Your task to perform on an android device: change keyboard looks Image 0: 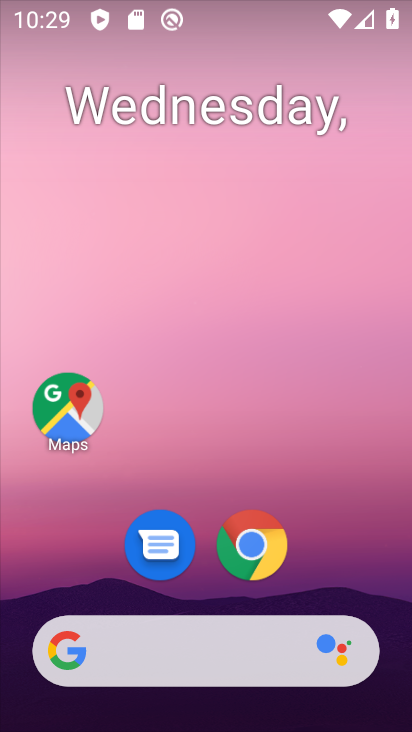
Step 0: drag from (182, 707) to (280, 19)
Your task to perform on an android device: change keyboard looks Image 1: 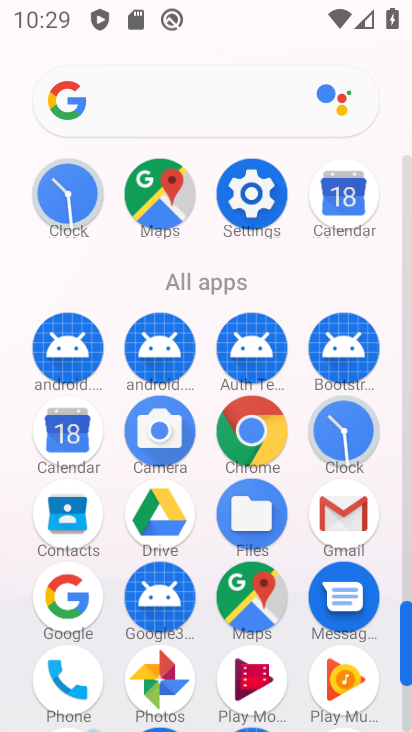
Step 1: click (246, 194)
Your task to perform on an android device: change keyboard looks Image 2: 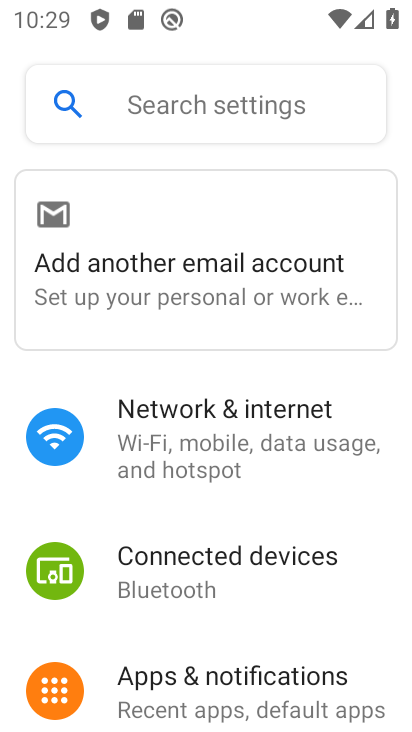
Step 2: drag from (283, 652) to (249, 15)
Your task to perform on an android device: change keyboard looks Image 3: 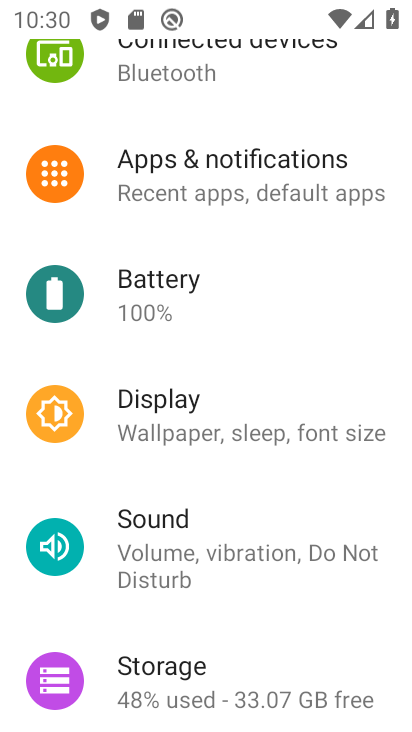
Step 3: drag from (278, 637) to (197, 84)
Your task to perform on an android device: change keyboard looks Image 4: 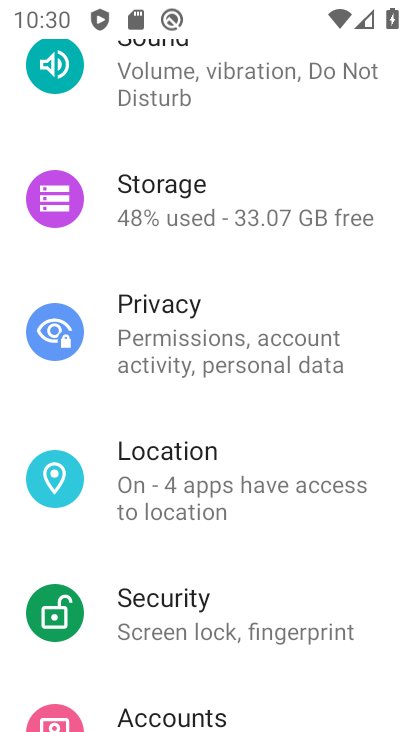
Step 4: drag from (268, 600) to (264, 184)
Your task to perform on an android device: change keyboard looks Image 5: 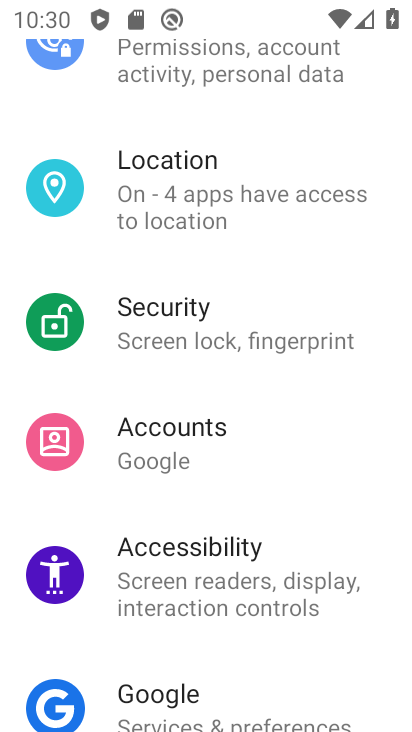
Step 5: drag from (283, 629) to (379, 32)
Your task to perform on an android device: change keyboard looks Image 6: 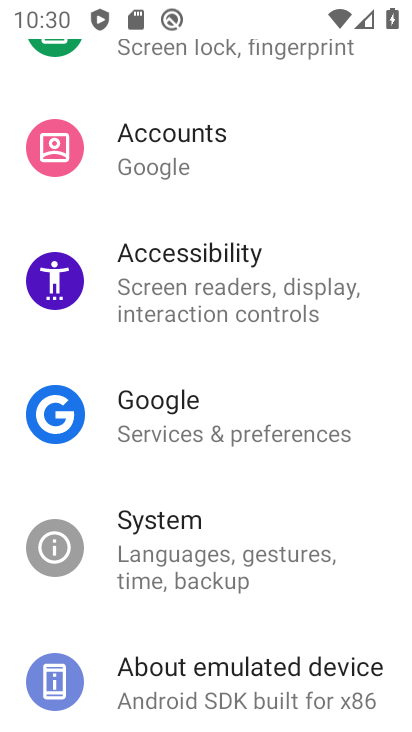
Step 6: drag from (296, 479) to (407, 499)
Your task to perform on an android device: change keyboard looks Image 7: 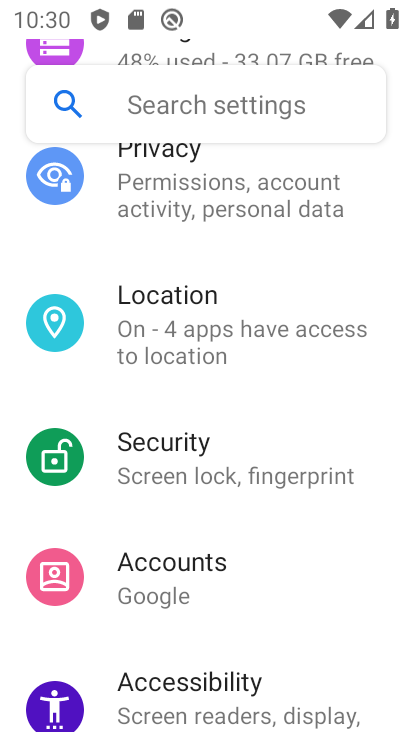
Step 7: drag from (267, 603) to (338, 53)
Your task to perform on an android device: change keyboard looks Image 8: 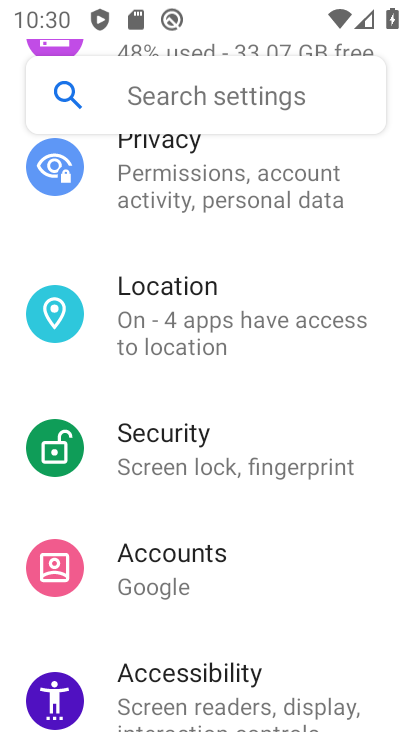
Step 8: drag from (267, 604) to (261, 9)
Your task to perform on an android device: change keyboard looks Image 9: 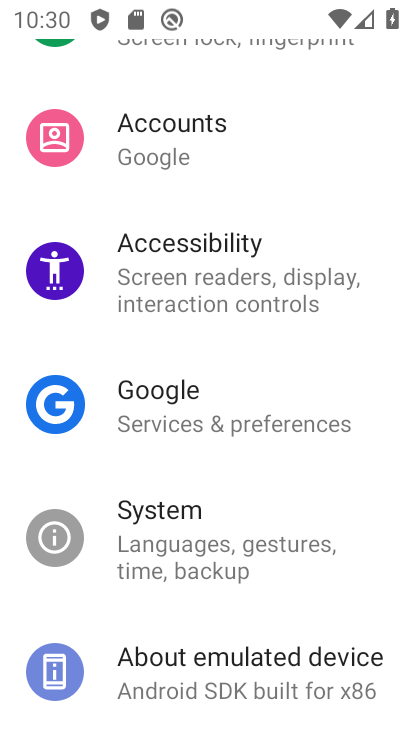
Step 9: click (242, 546)
Your task to perform on an android device: change keyboard looks Image 10: 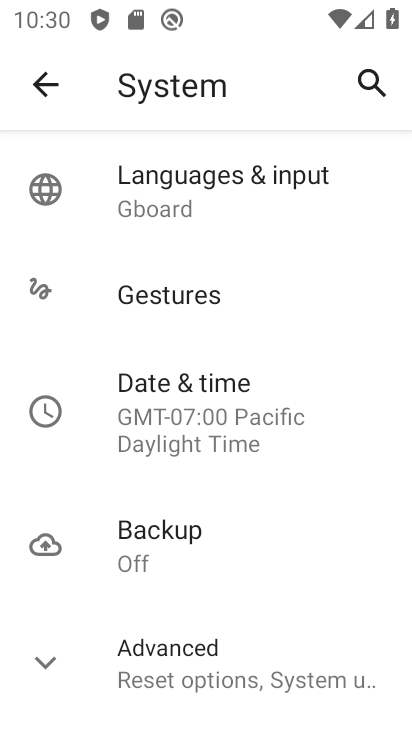
Step 10: click (207, 187)
Your task to perform on an android device: change keyboard looks Image 11: 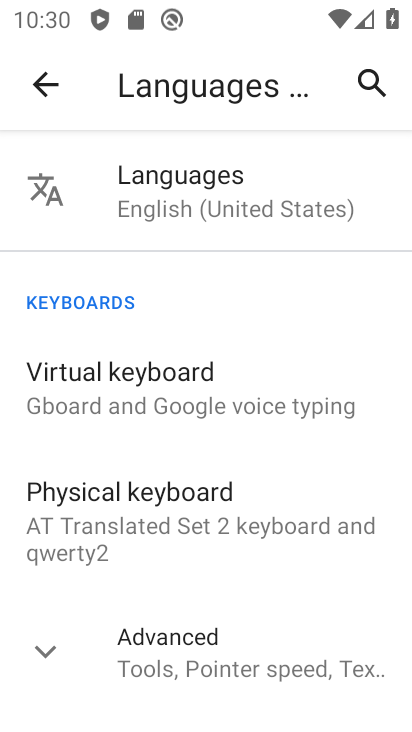
Step 11: click (152, 365)
Your task to perform on an android device: change keyboard looks Image 12: 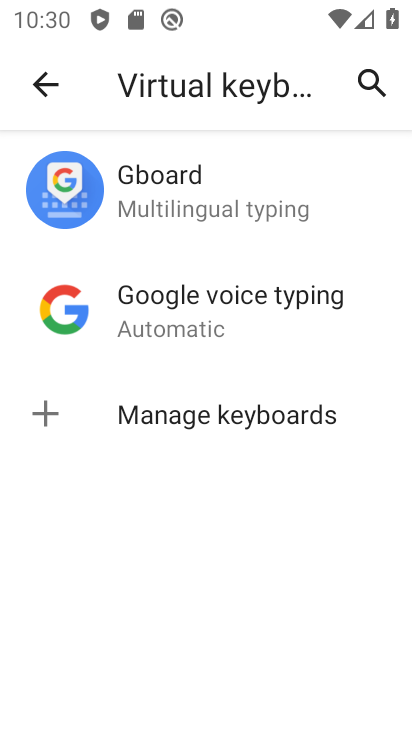
Step 12: click (289, 185)
Your task to perform on an android device: change keyboard looks Image 13: 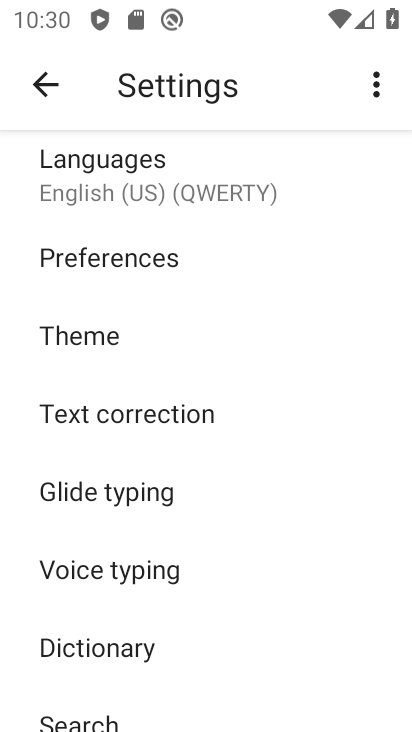
Step 13: click (130, 318)
Your task to perform on an android device: change keyboard looks Image 14: 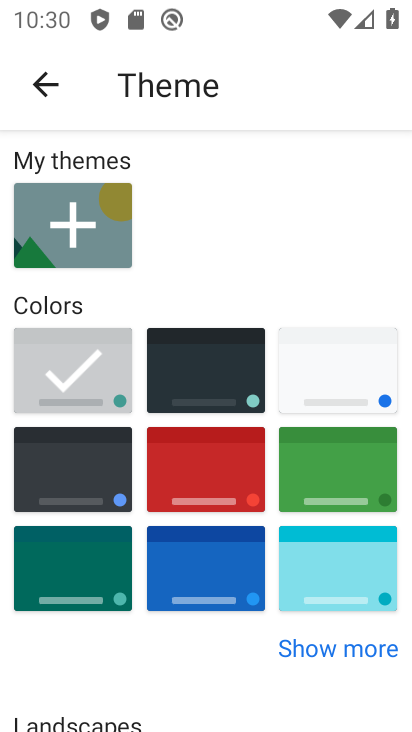
Step 14: click (210, 358)
Your task to perform on an android device: change keyboard looks Image 15: 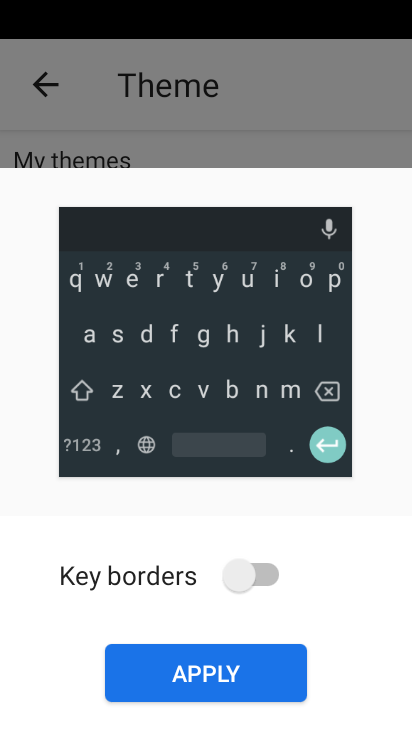
Step 15: click (253, 681)
Your task to perform on an android device: change keyboard looks Image 16: 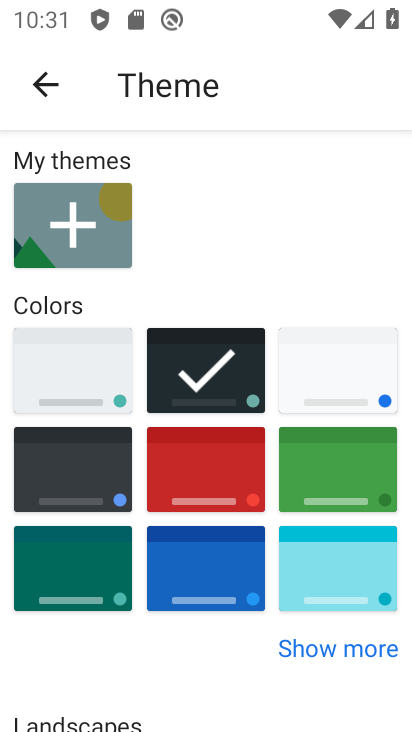
Step 16: task complete